Your task to perform on an android device: Do I have any events today? Image 0: 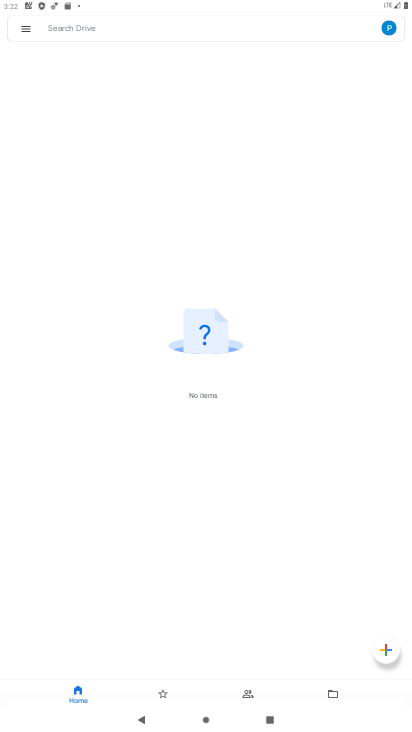
Step 0: press home button
Your task to perform on an android device: Do I have any events today? Image 1: 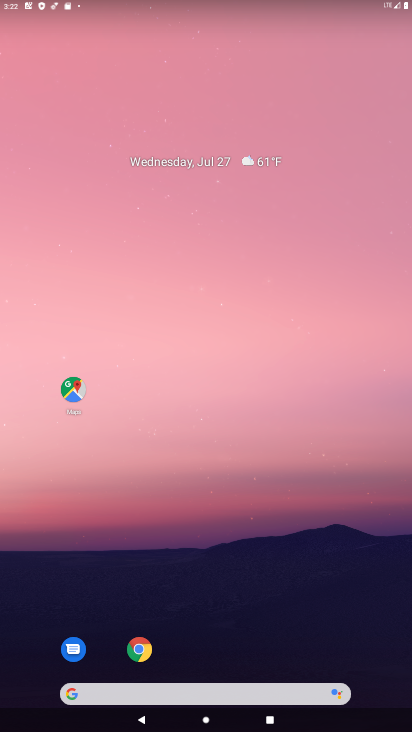
Step 1: drag from (298, 296) to (335, 64)
Your task to perform on an android device: Do I have any events today? Image 2: 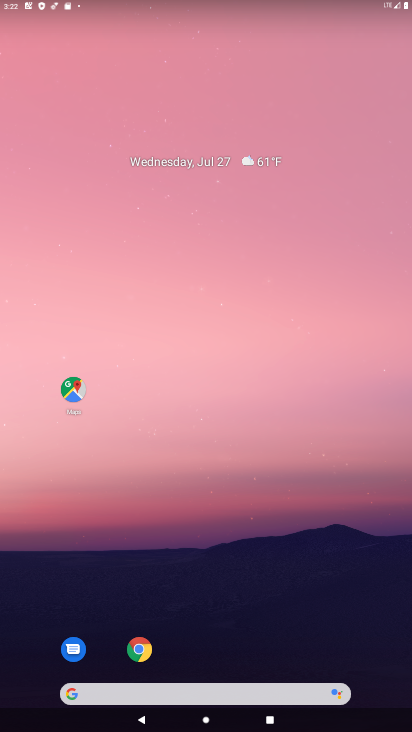
Step 2: drag from (182, 629) to (169, 193)
Your task to perform on an android device: Do I have any events today? Image 3: 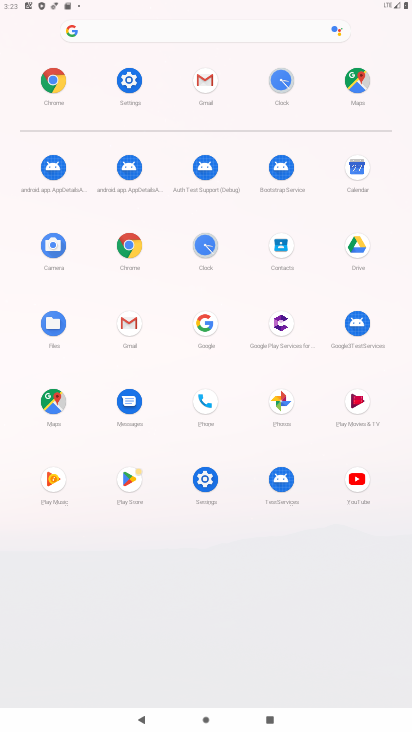
Step 3: click (358, 170)
Your task to perform on an android device: Do I have any events today? Image 4: 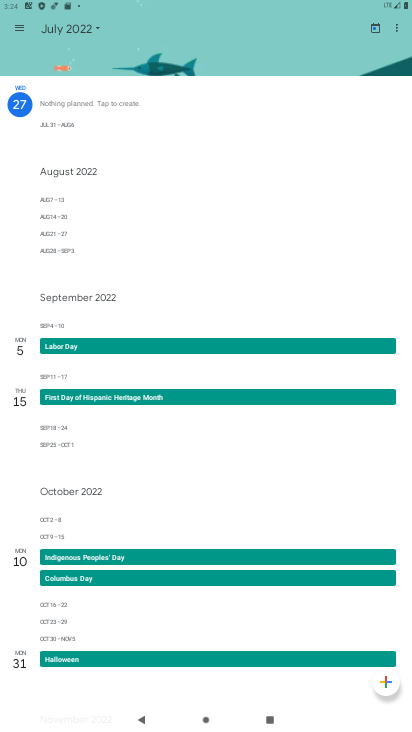
Step 4: task complete